Your task to perform on an android device: turn on bluetooth scan Image 0: 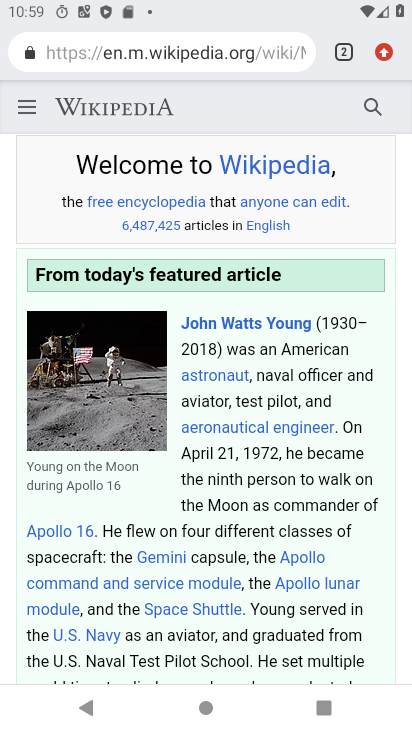
Step 0: task complete